Your task to perform on an android device: toggle notification dots Image 0: 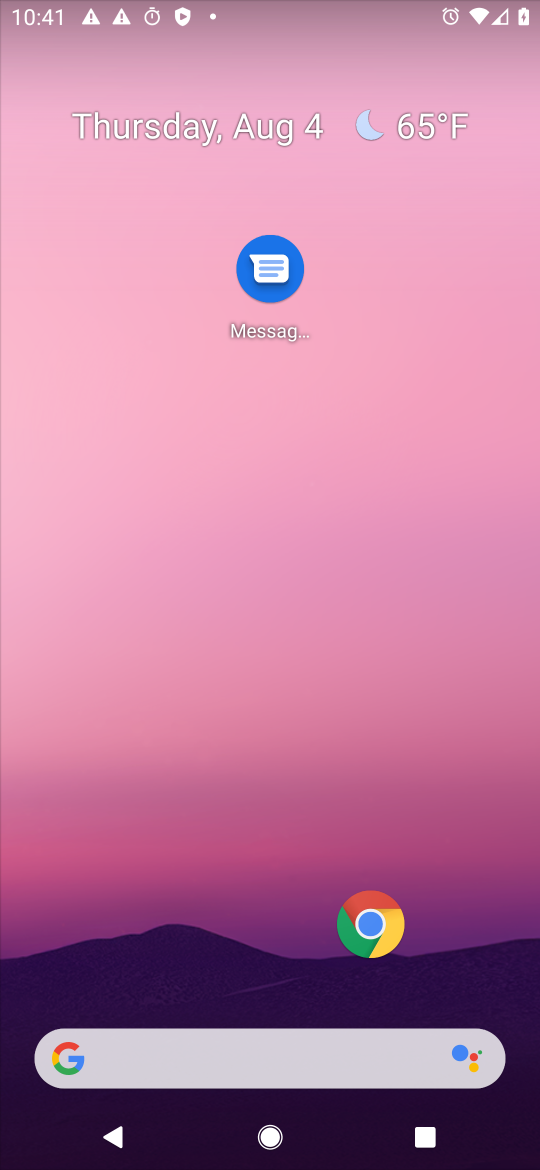
Step 0: click (313, 219)
Your task to perform on an android device: toggle notification dots Image 1: 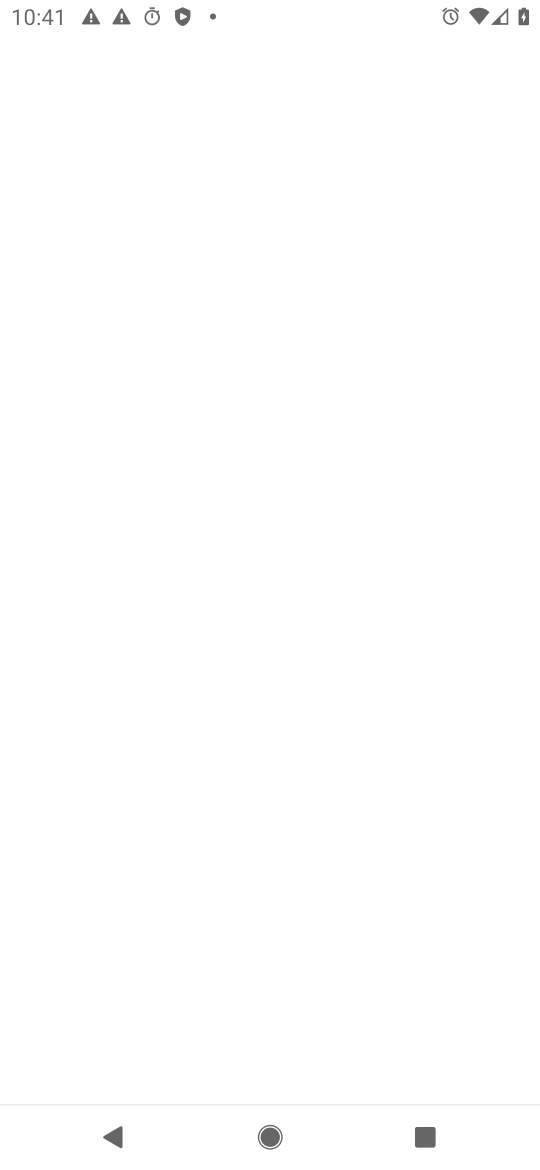
Step 1: drag from (283, 969) to (247, 575)
Your task to perform on an android device: toggle notification dots Image 2: 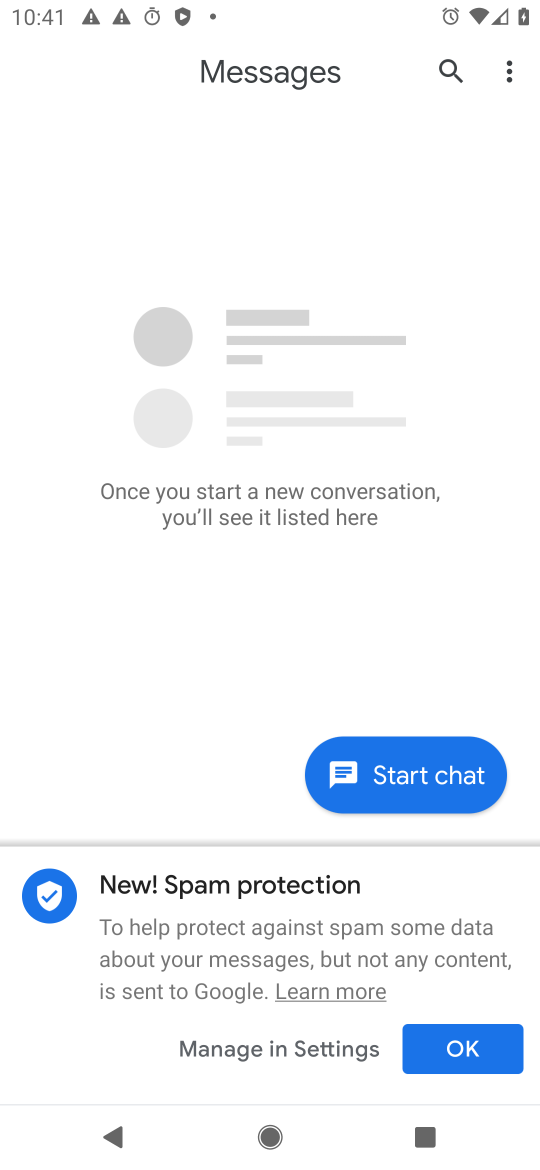
Step 2: press home button
Your task to perform on an android device: toggle notification dots Image 3: 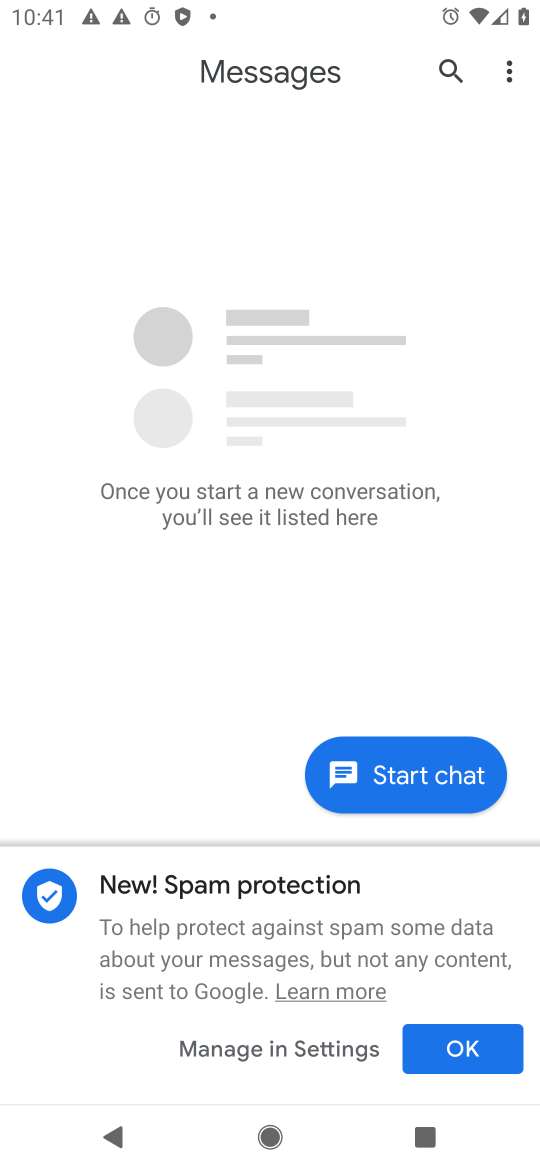
Step 3: press home button
Your task to perform on an android device: toggle notification dots Image 4: 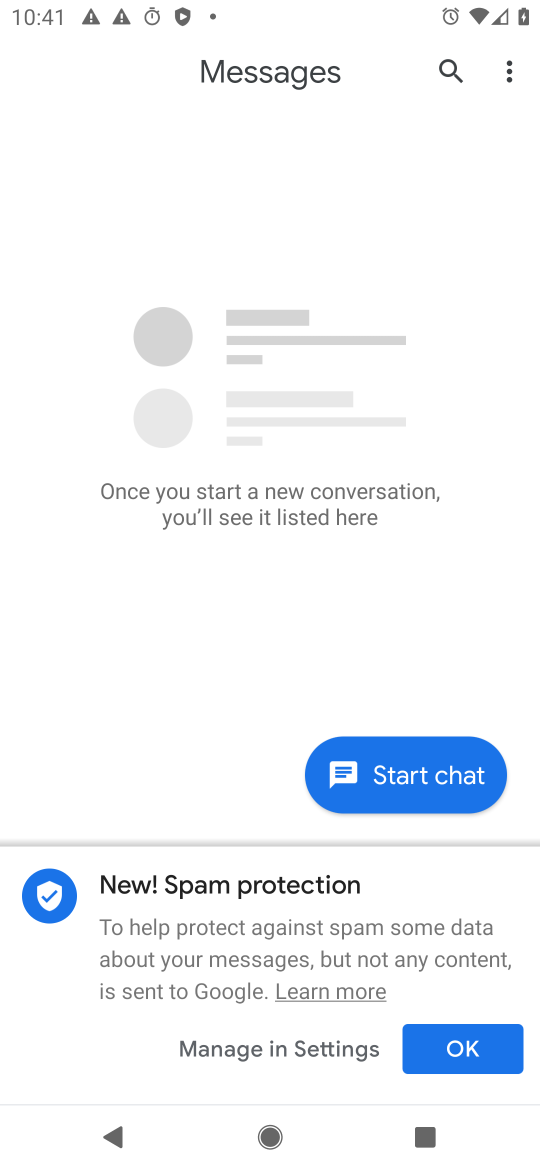
Step 4: click (320, 206)
Your task to perform on an android device: toggle notification dots Image 5: 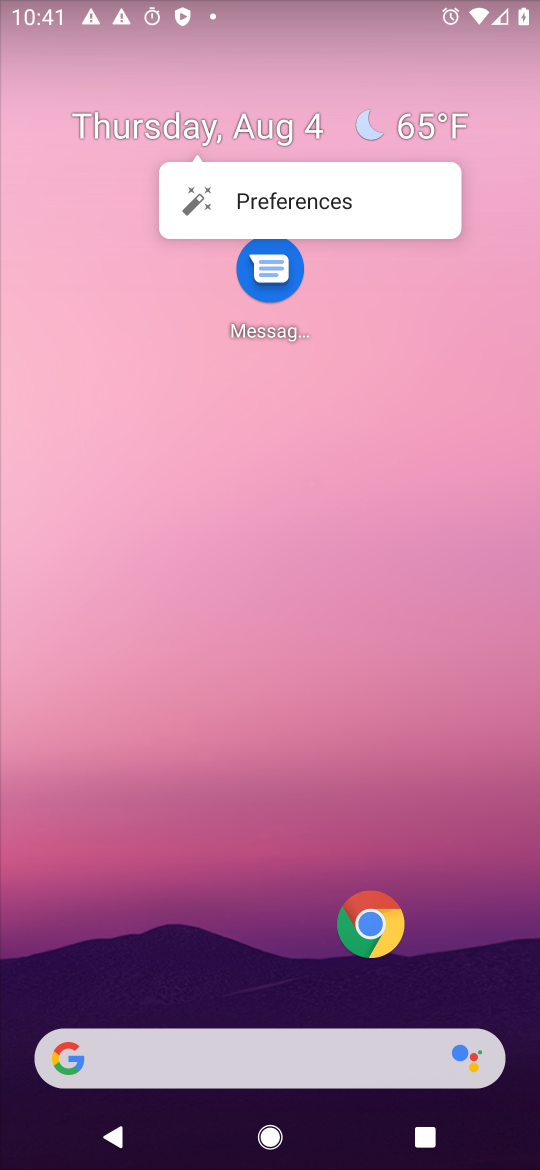
Step 5: drag from (251, 351) to (272, 103)
Your task to perform on an android device: toggle notification dots Image 6: 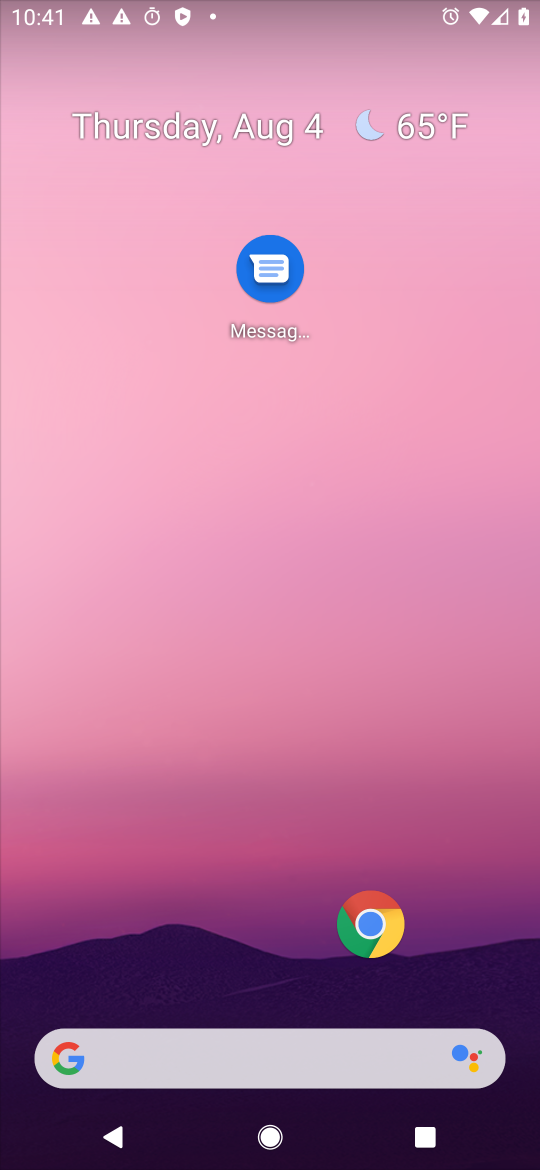
Step 6: drag from (258, 431) to (265, 151)
Your task to perform on an android device: toggle notification dots Image 7: 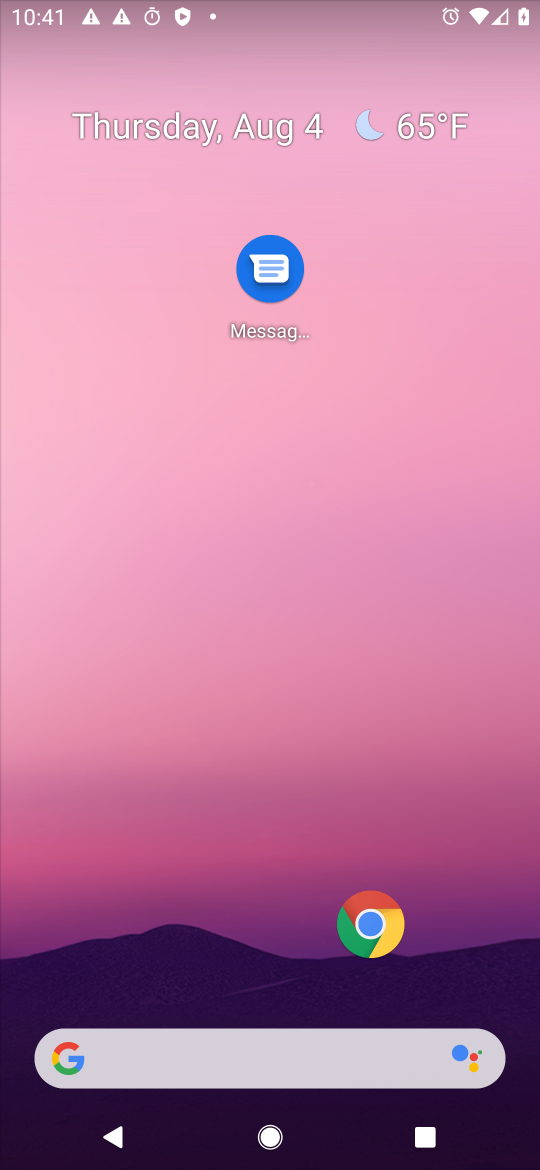
Step 7: drag from (294, 295) to (303, 115)
Your task to perform on an android device: toggle notification dots Image 8: 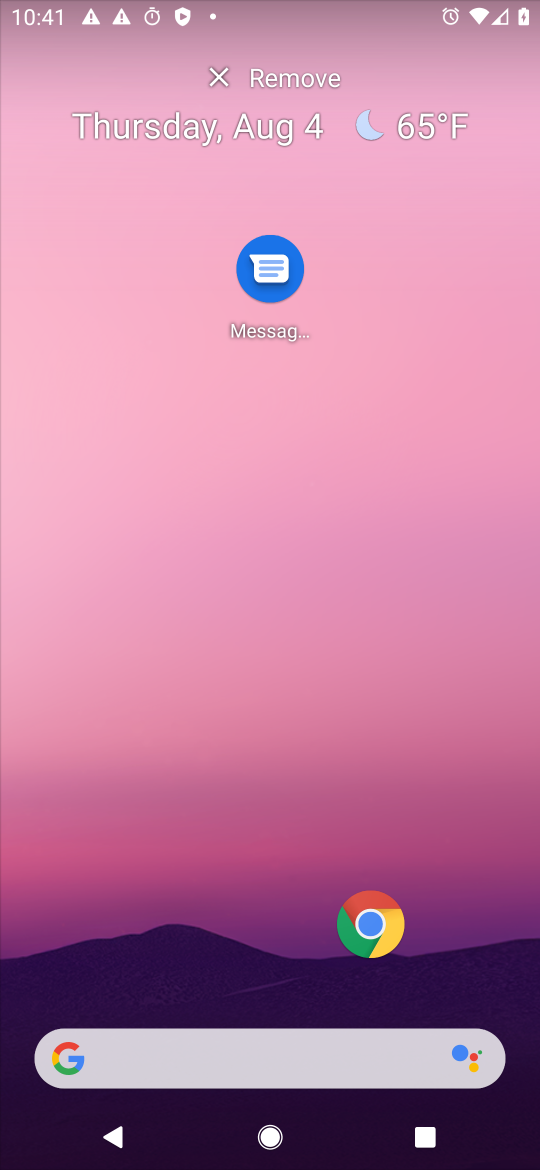
Step 8: click (299, 83)
Your task to perform on an android device: toggle notification dots Image 9: 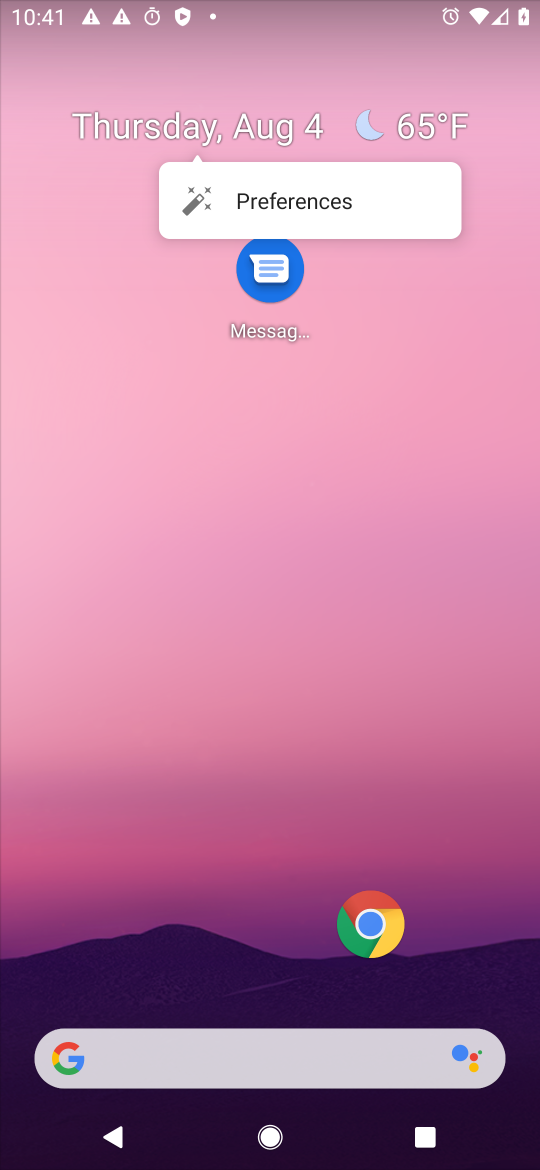
Step 9: drag from (258, 843) to (345, 224)
Your task to perform on an android device: toggle notification dots Image 10: 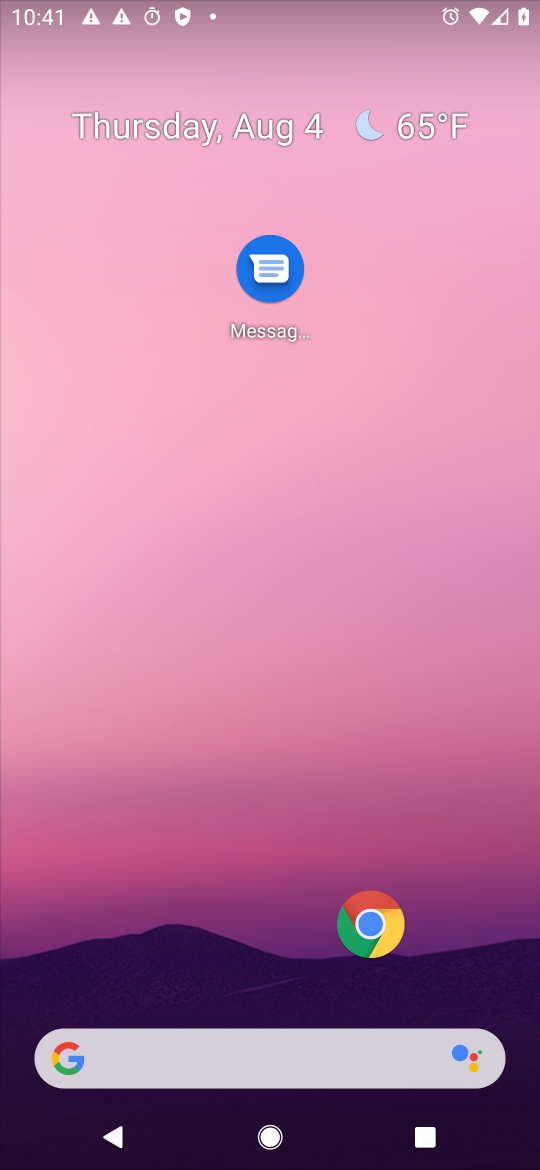
Step 10: click (274, 344)
Your task to perform on an android device: toggle notification dots Image 11: 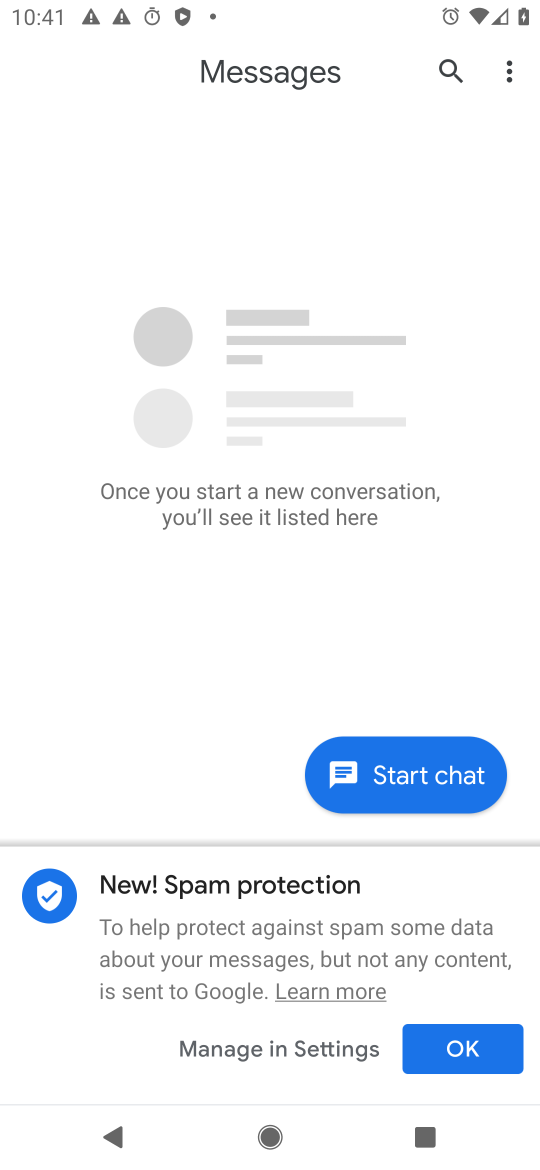
Step 11: press home button
Your task to perform on an android device: toggle notification dots Image 12: 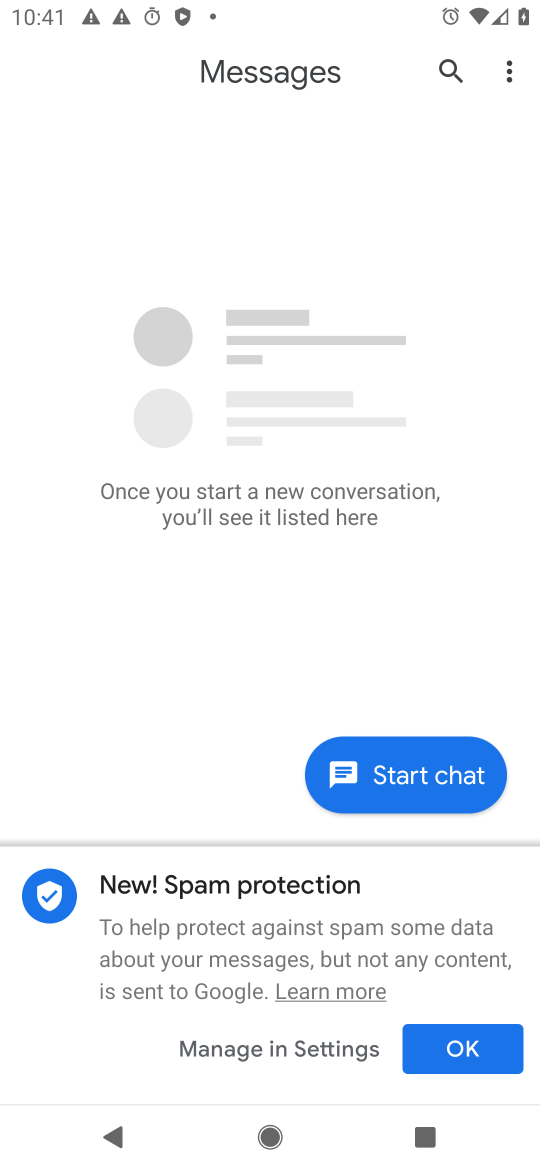
Step 12: drag from (252, 758) to (341, 155)
Your task to perform on an android device: toggle notification dots Image 13: 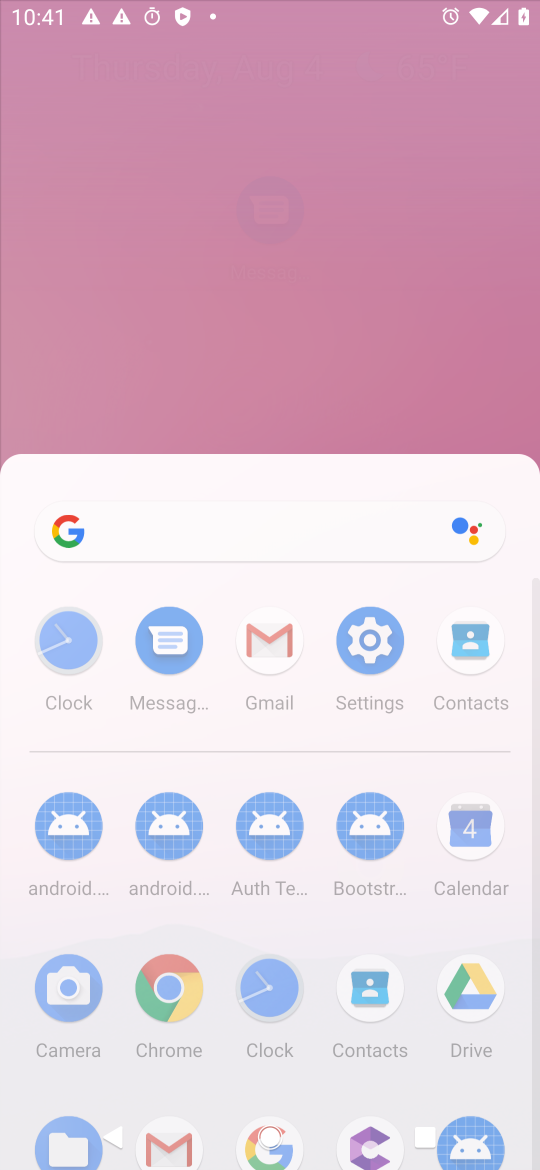
Step 13: press home button
Your task to perform on an android device: toggle notification dots Image 14: 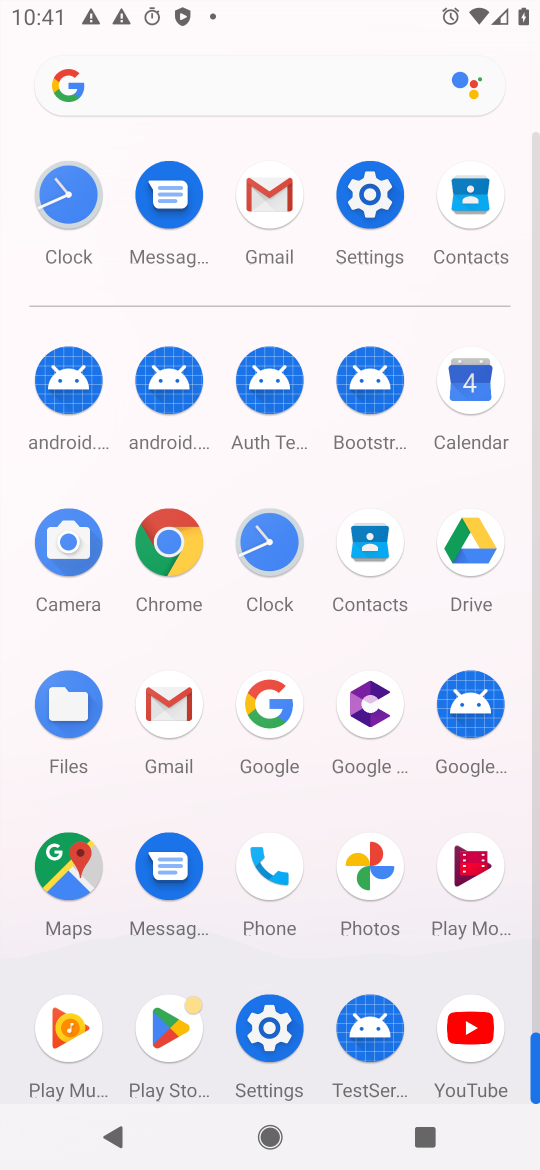
Step 14: press home button
Your task to perform on an android device: toggle notification dots Image 15: 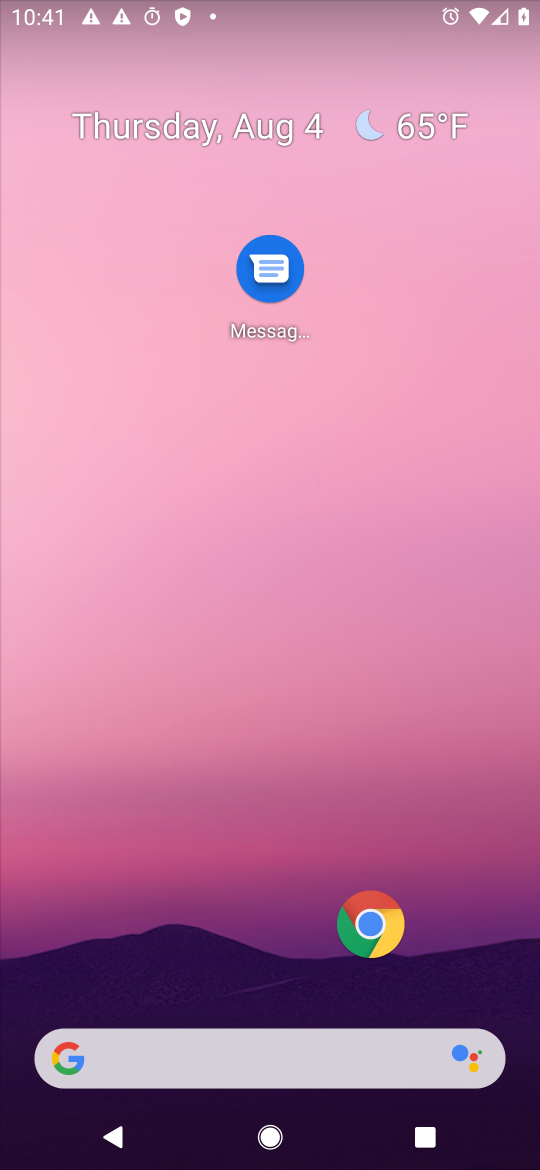
Step 15: drag from (307, 915) to (365, 136)
Your task to perform on an android device: toggle notification dots Image 16: 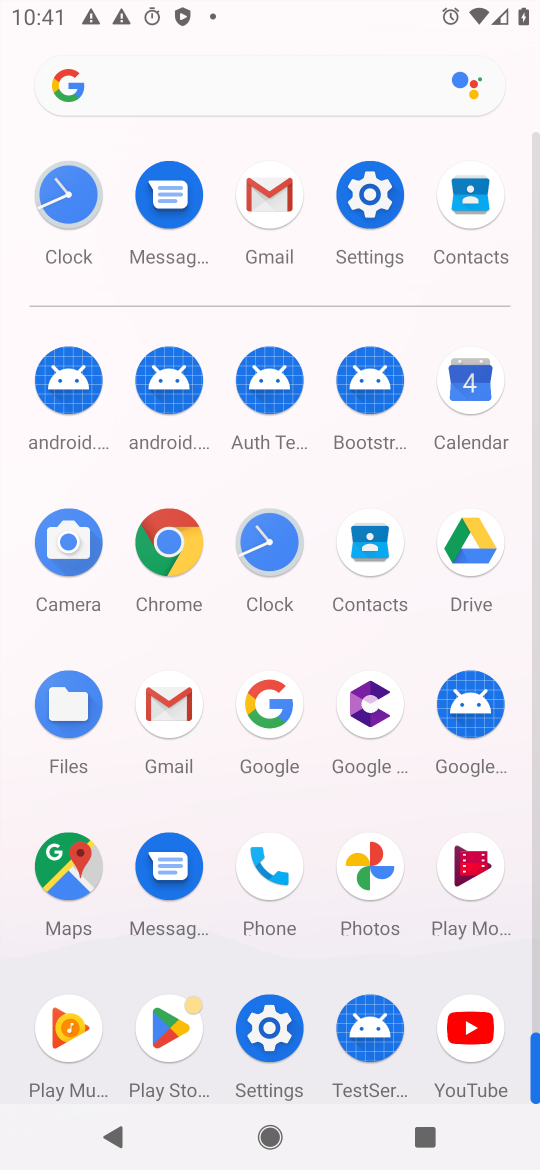
Step 16: click (258, 1034)
Your task to perform on an android device: toggle notification dots Image 17: 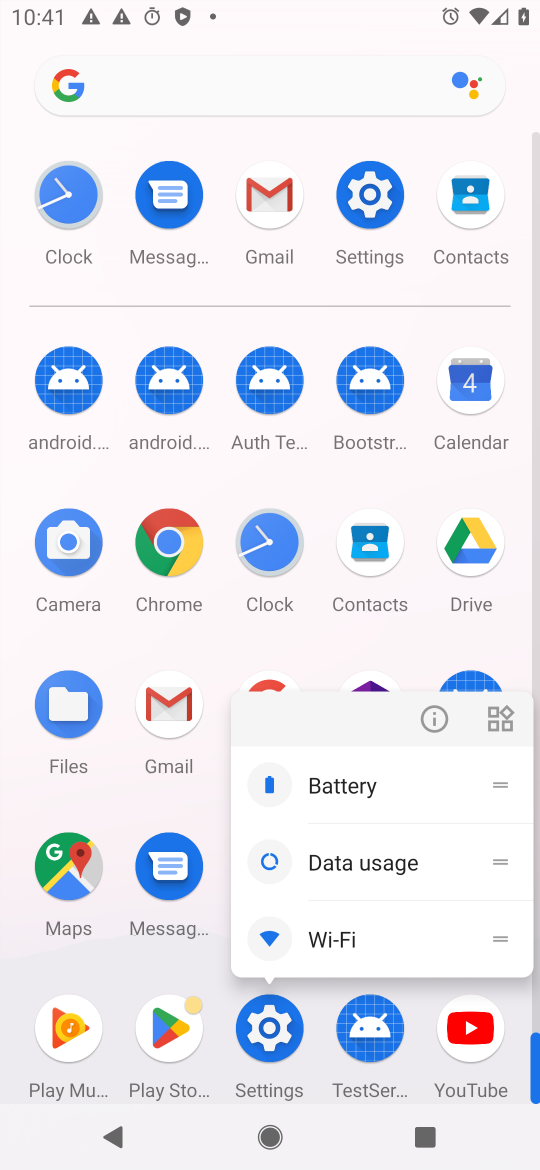
Step 17: click (426, 725)
Your task to perform on an android device: toggle notification dots Image 18: 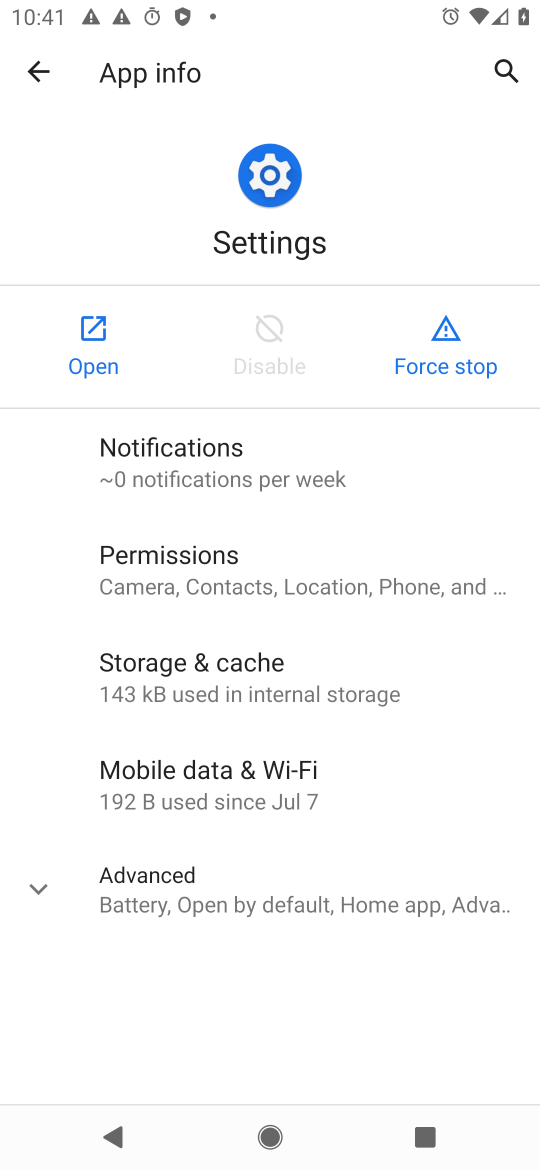
Step 18: click (106, 343)
Your task to perform on an android device: toggle notification dots Image 19: 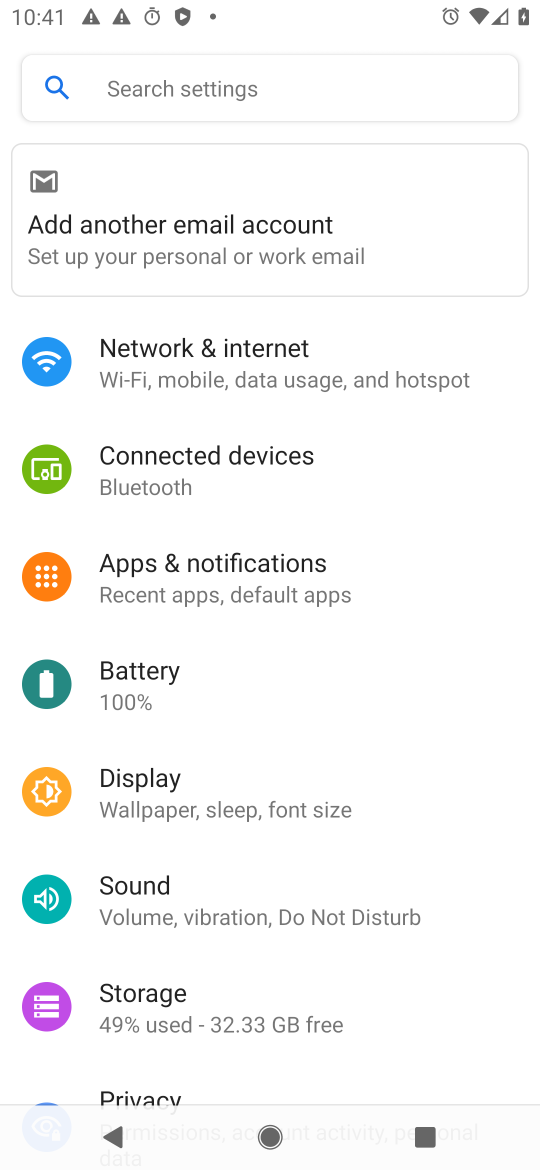
Step 19: click (200, 579)
Your task to perform on an android device: toggle notification dots Image 20: 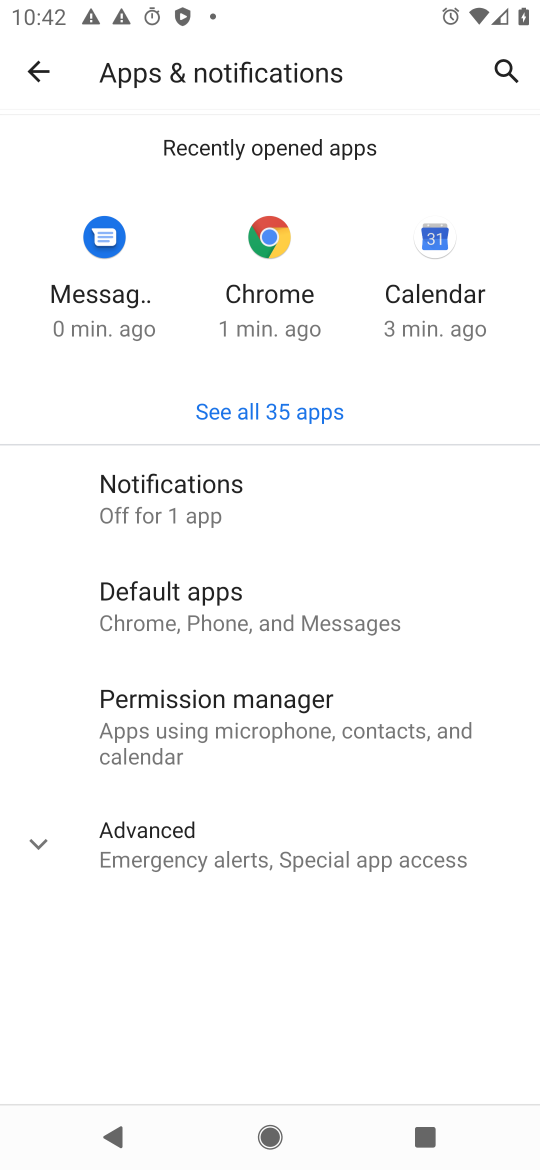
Step 20: click (248, 507)
Your task to perform on an android device: toggle notification dots Image 21: 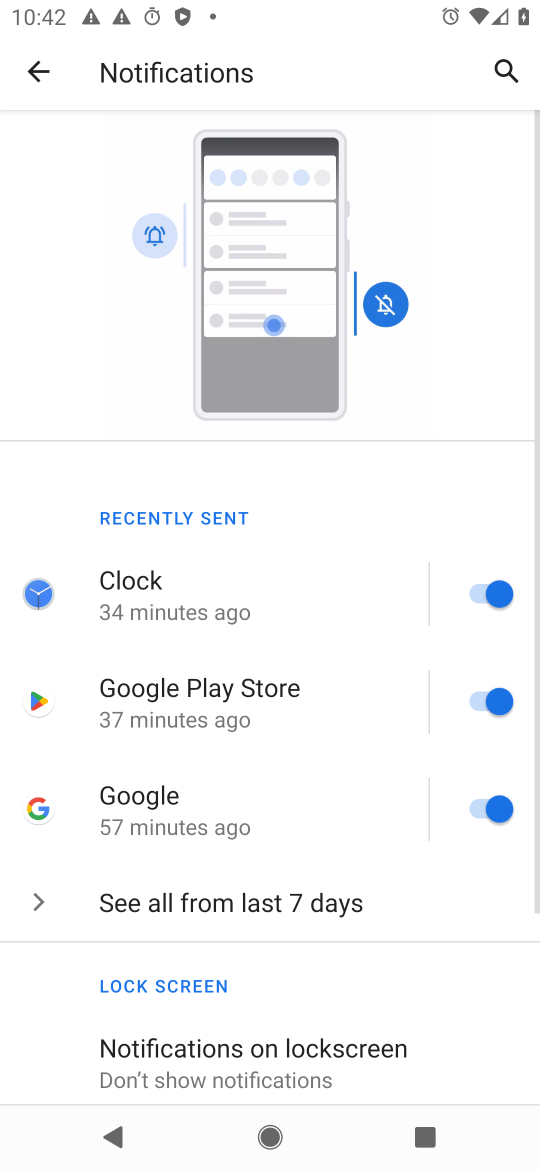
Step 21: drag from (275, 947) to (407, 75)
Your task to perform on an android device: toggle notification dots Image 22: 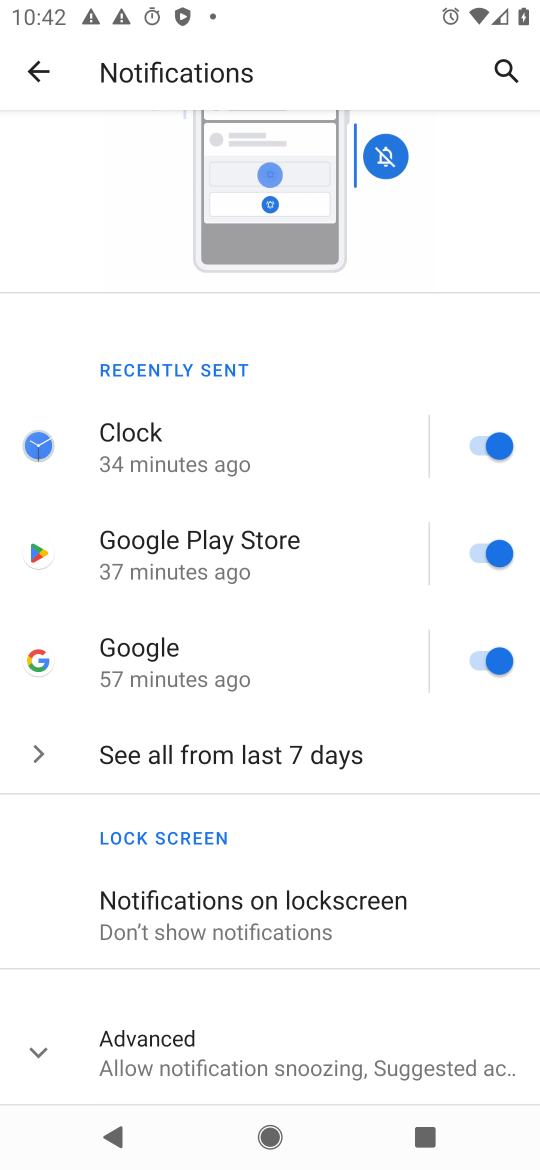
Step 22: drag from (328, 831) to (375, 425)
Your task to perform on an android device: toggle notification dots Image 23: 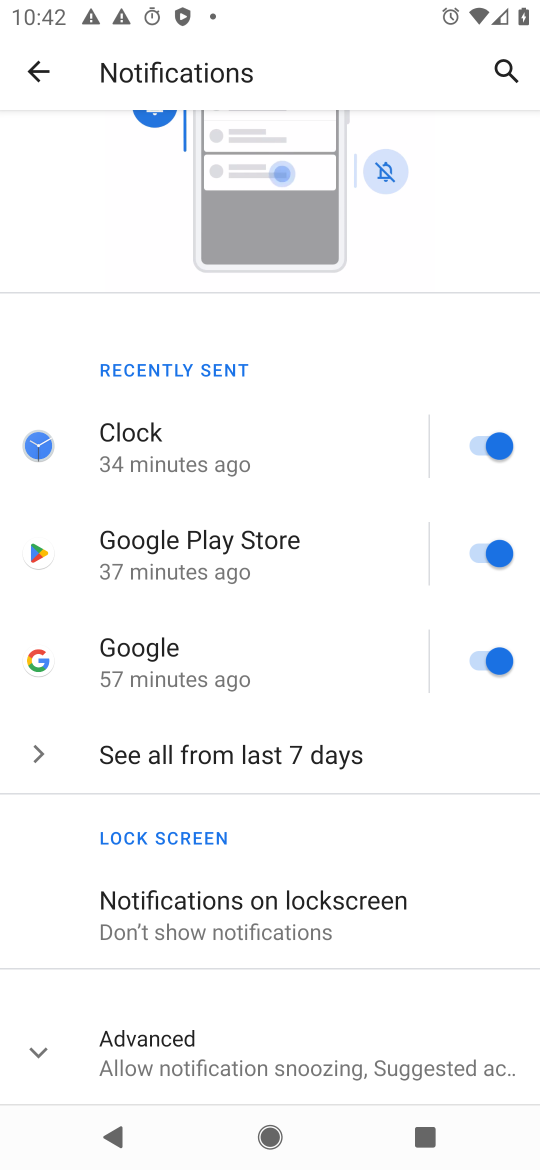
Step 23: click (196, 1062)
Your task to perform on an android device: toggle notification dots Image 24: 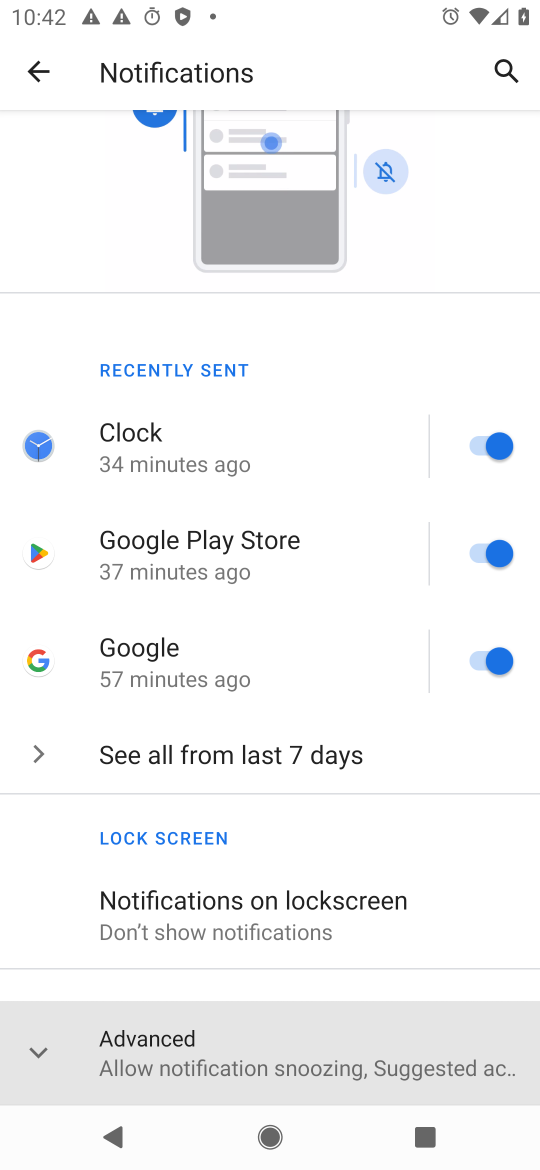
Step 24: drag from (230, 1017) to (353, 362)
Your task to perform on an android device: toggle notification dots Image 25: 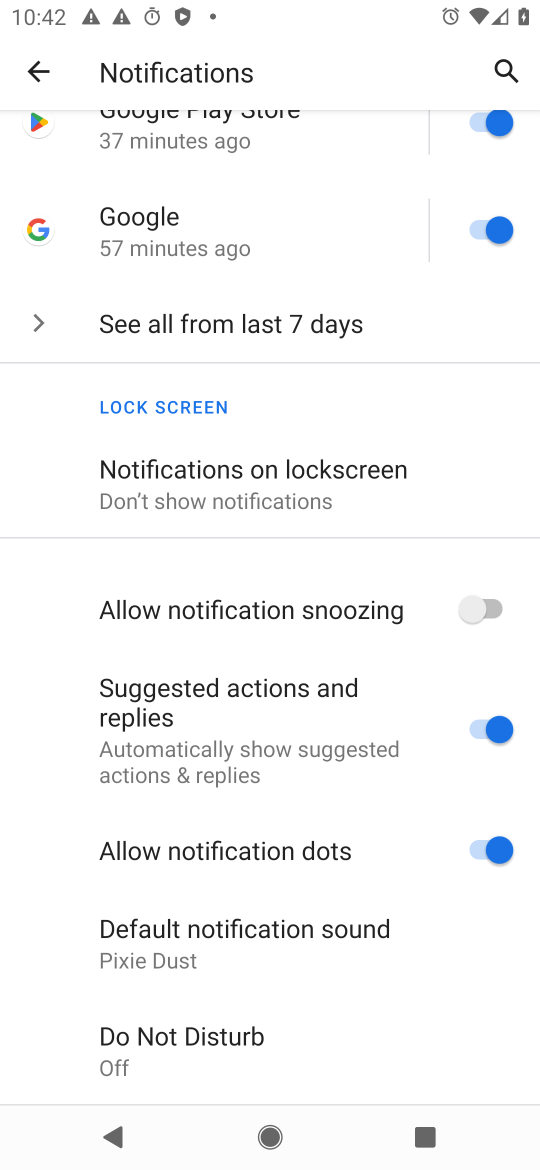
Step 25: click (365, 542)
Your task to perform on an android device: toggle notification dots Image 26: 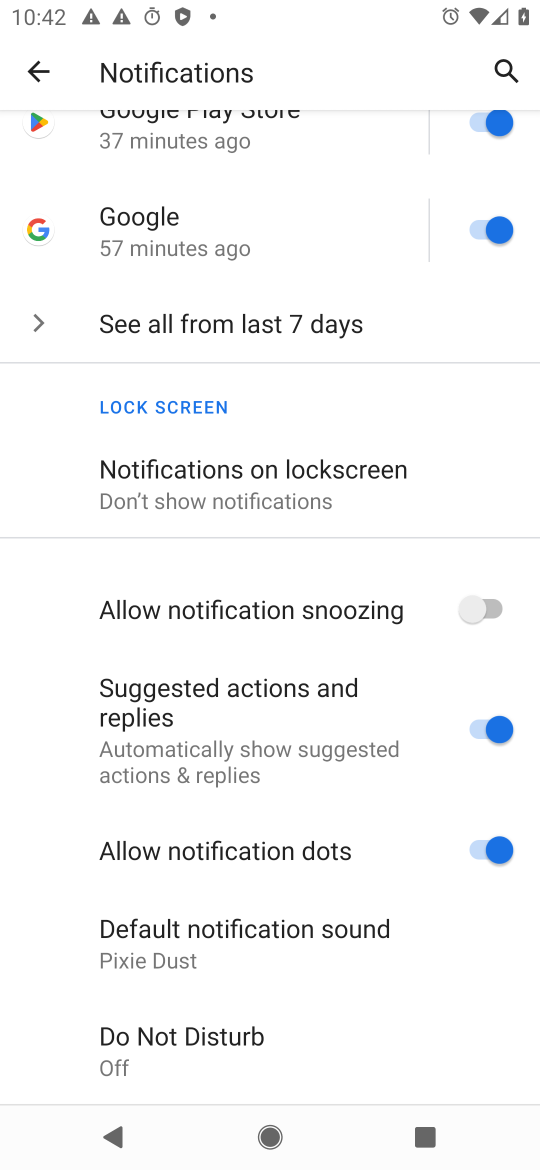
Step 26: click (505, 840)
Your task to perform on an android device: toggle notification dots Image 27: 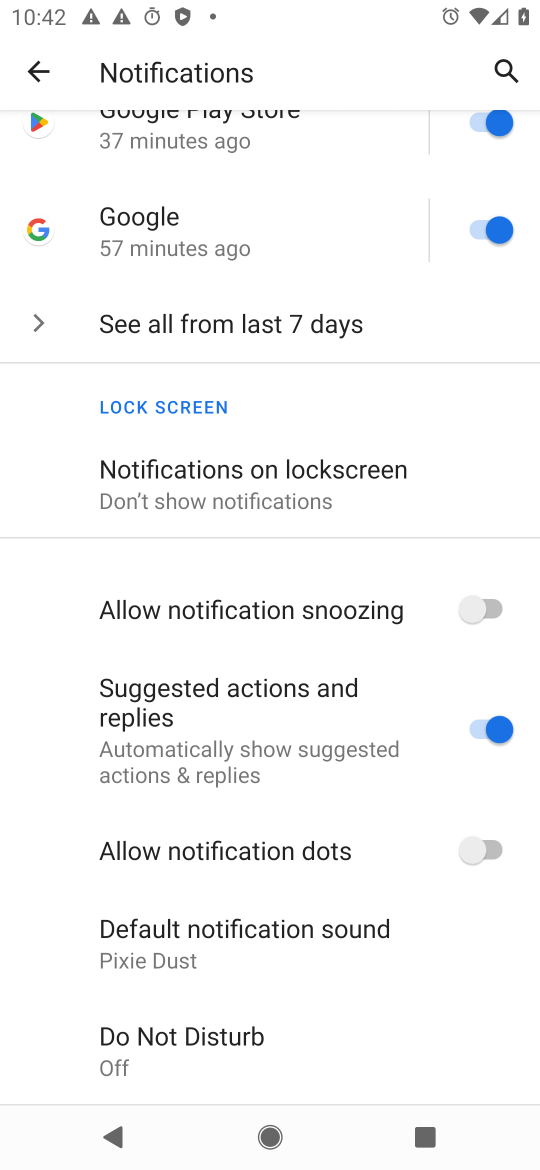
Step 27: task complete